Your task to perform on an android device: see creations saved in the google photos Image 0: 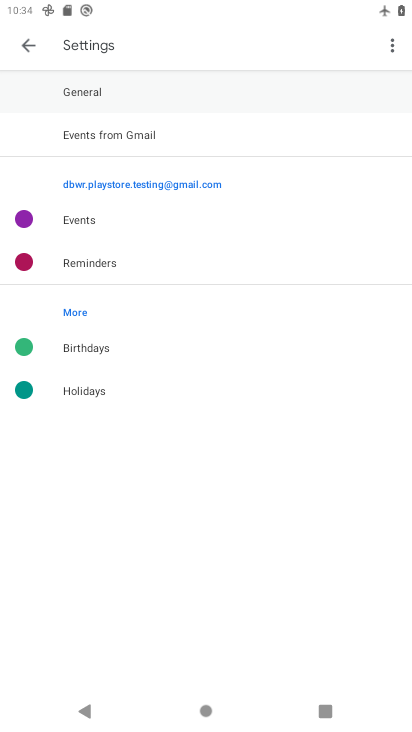
Step 0: click (25, 56)
Your task to perform on an android device: see creations saved in the google photos Image 1: 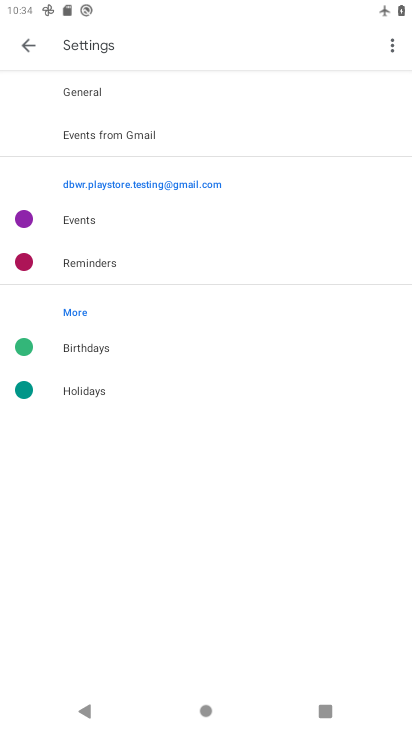
Step 1: click (29, 34)
Your task to perform on an android device: see creations saved in the google photos Image 2: 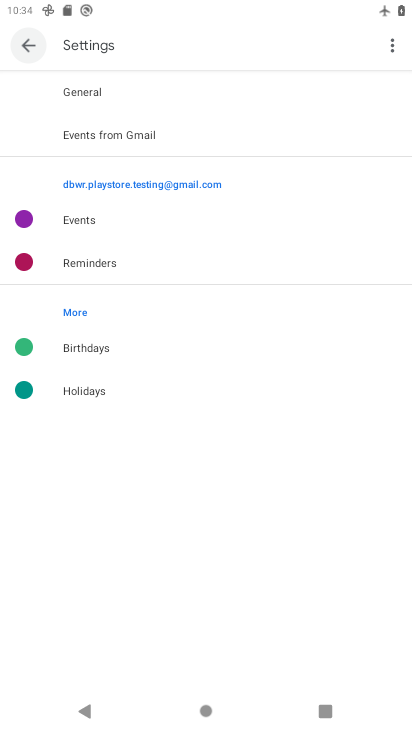
Step 2: click (30, 51)
Your task to perform on an android device: see creations saved in the google photos Image 3: 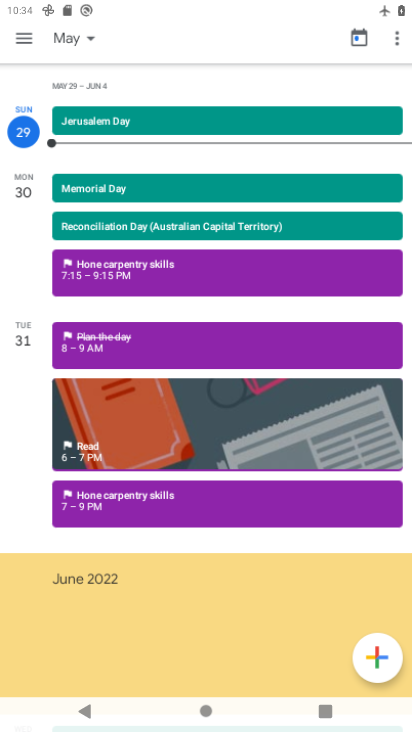
Step 3: click (30, 51)
Your task to perform on an android device: see creations saved in the google photos Image 4: 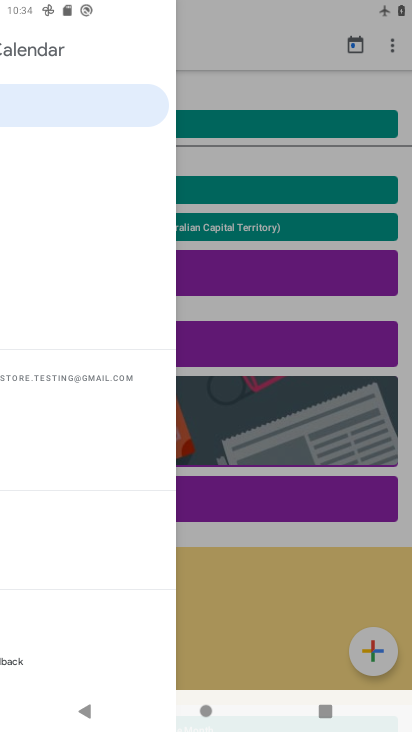
Step 4: click (30, 51)
Your task to perform on an android device: see creations saved in the google photos Image 5: 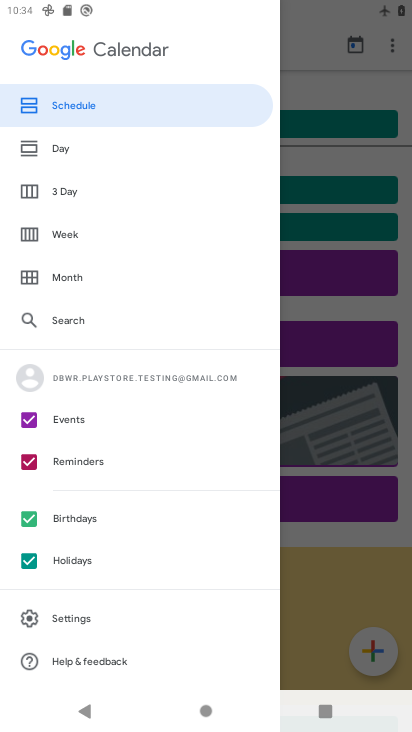
Step 5: press back button
Your task to perform on an android device: see creations saved in the google photos Image 6: 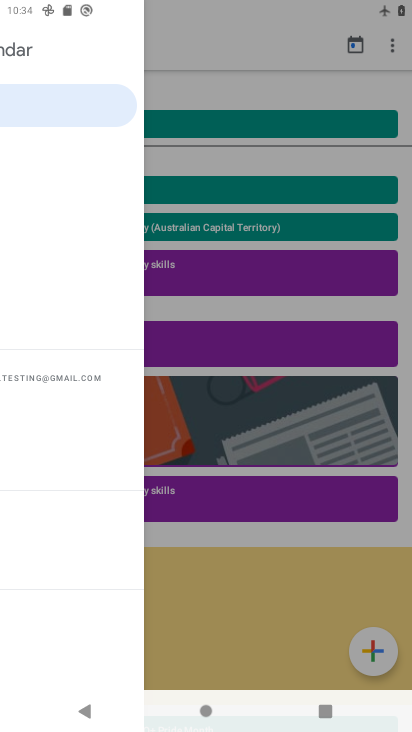
Step 6: press back button
Your task to perform on an android device: see creations saved in the google photos Image 7: 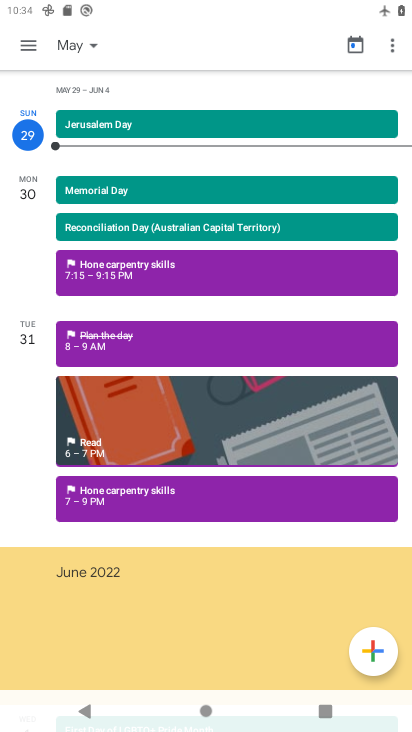
Step 7: press back button
Your task to perform on an android device: see creations saved in the google photos Image 8: 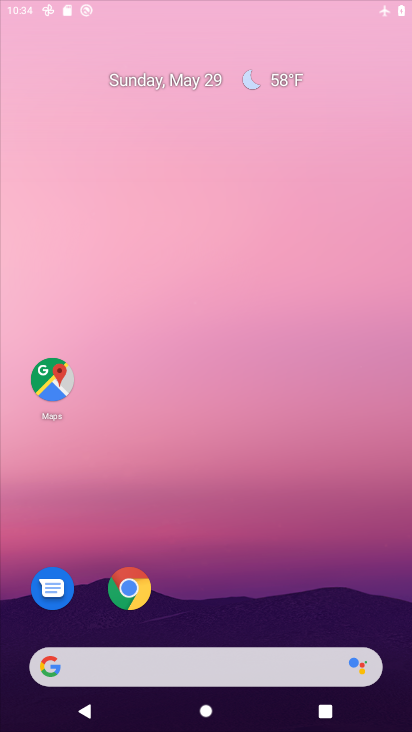
Step 8: press back button
Your task to perform on an android device: see creations saved in the google photos Image 9: 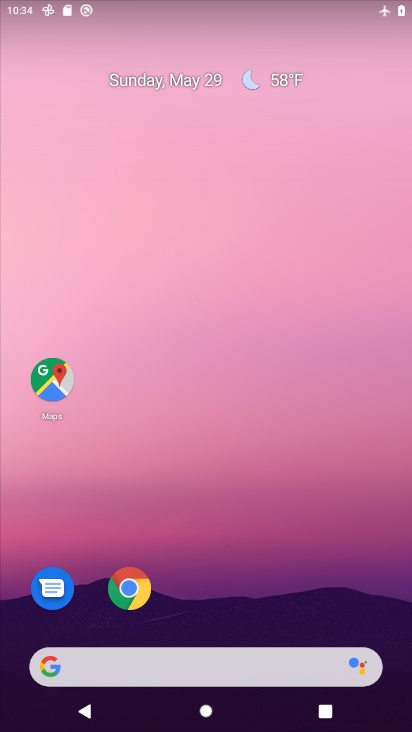
Step 9: drag from (272, 683) to (218, 194)
Your task to perform on an android device: see creations saved in the google photos Image 10: 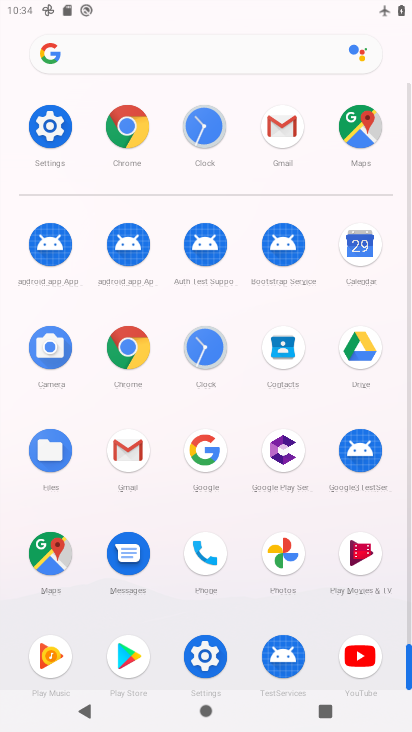
Step 10: click (270, 547)
Your task to perform on an android device: see creations saved in the google photos Image 11: 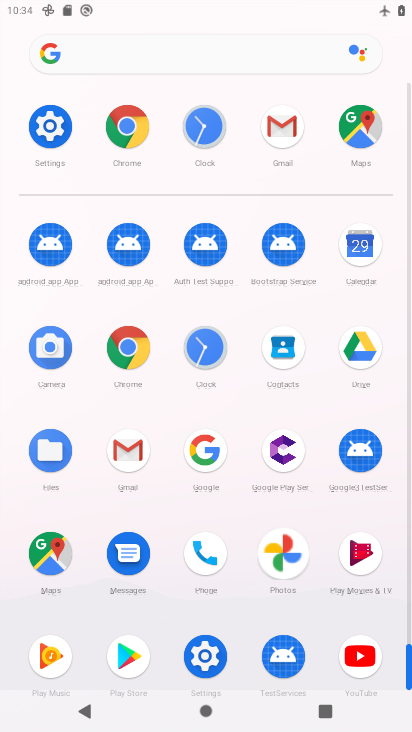
Step 11: click (272, 548)
Your task to perform on an android device: see creations saved in the google photos Image 12: 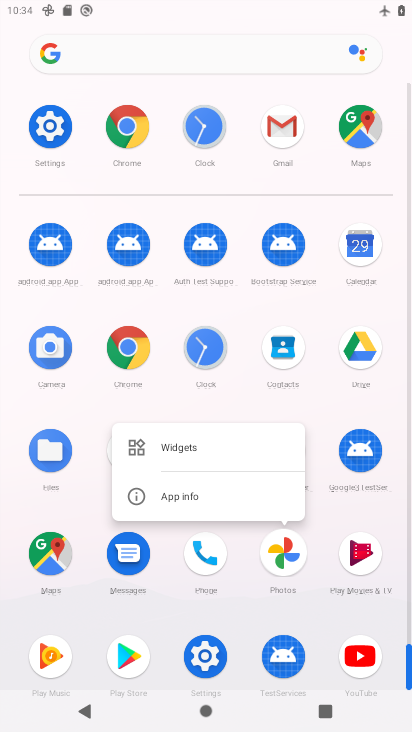
Step 12: click (281, 549)
Your task to perform on an android device: see creations saved in the google photos Image 13: 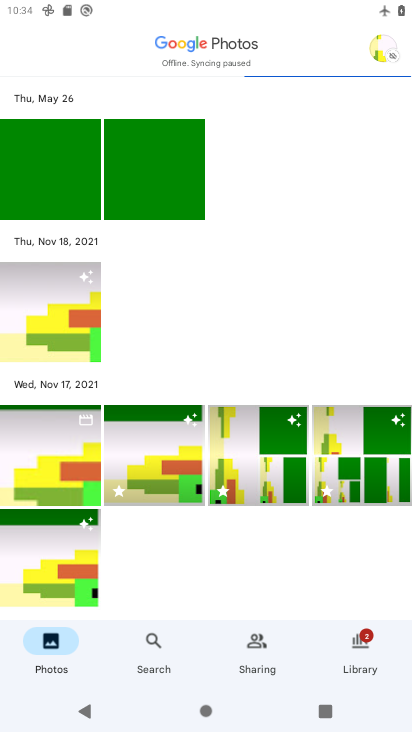
Step 13: click (281, 542)
Your task to perform on an android device: see creations saved in the google photos Image 14: 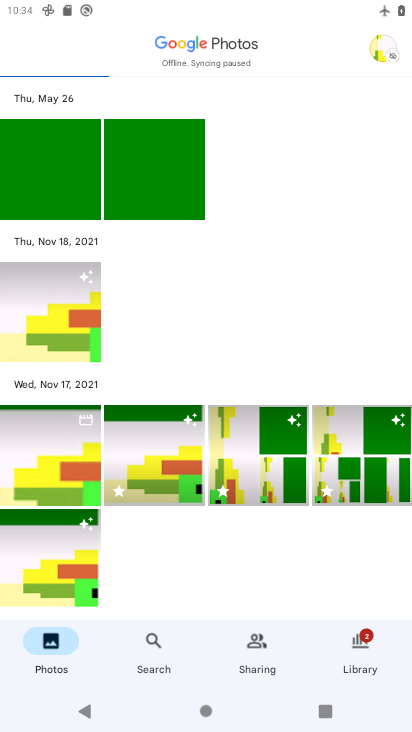
Step 14: click (282, 553)
Your task to perform on an android device: see creations saved in the google photos Image 15: 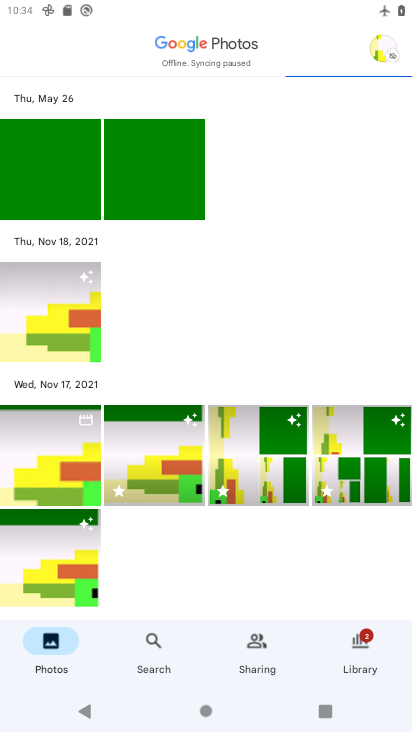
Step 15: click (273, 534)
Your task to perform on an android device: see creations saved in the google photos Image 16: 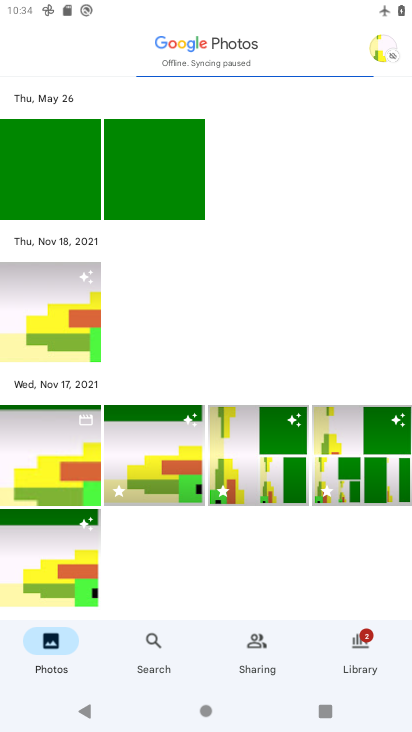
Step 16: task complete